Your task to perform on an android device: Go to Google Image 0: 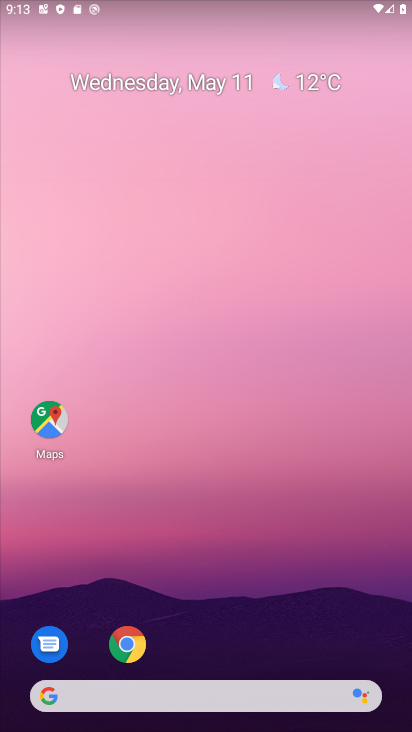
Step 0: drag from (207, 631) to (213, 94)
Your task to perform on an android device: Go to Google Image 1: 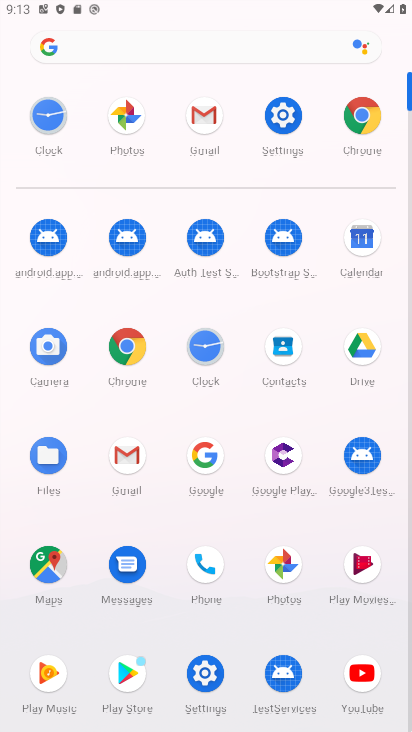
Step 1: click (206, 451)
Your task to perform on an android device: Go to Google Image 2: 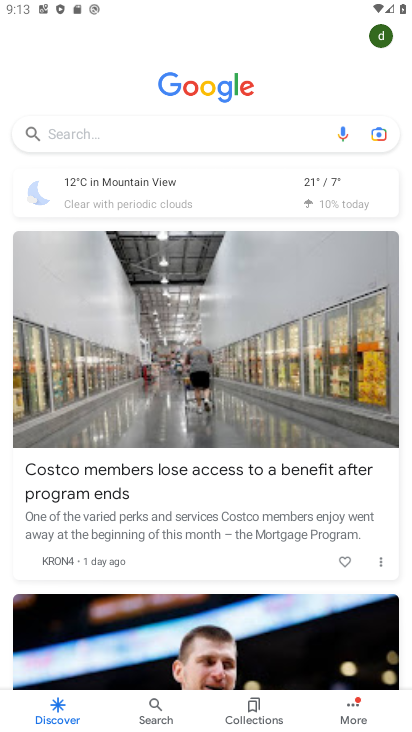
Step 2: task complete